Your task to perform on an android device: stop showing notifications on the lock screen Image 0: 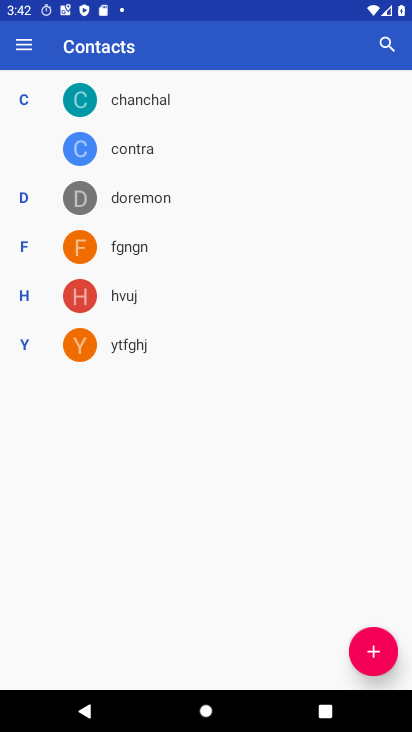
Step 0: press home button
Your task to perform on an android device: stop showing notifications on the lock screen Image 1: 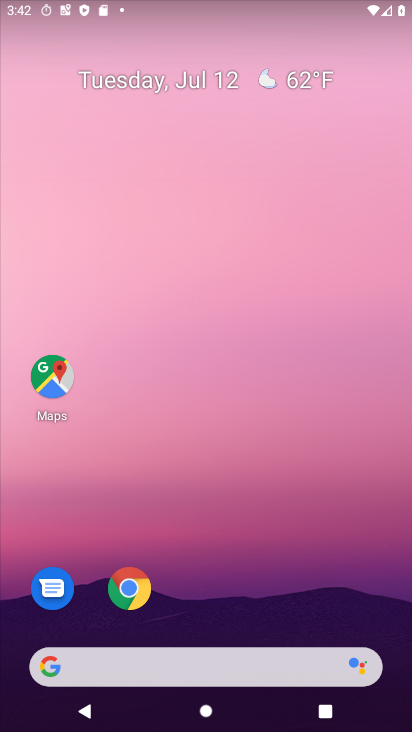
Step 1: drag from (195, 586) to (192, 113)
Your task to perform on an android device: stop showing notifications on the lock screen Image 2: 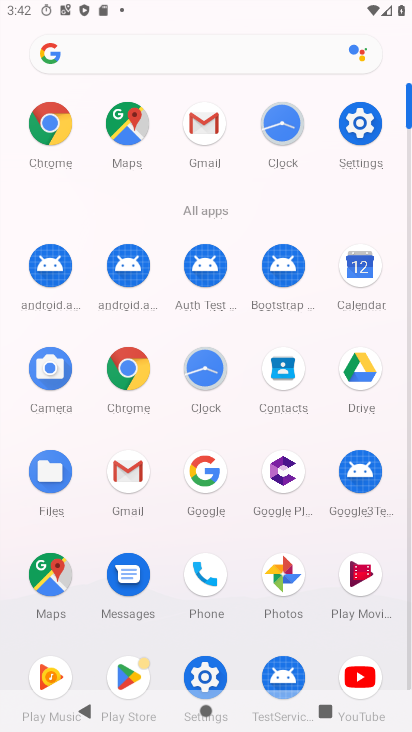
Step 2: click (203, 669)
Your task to perform on an android device: stop showing notifications on the lock screen Image 3: 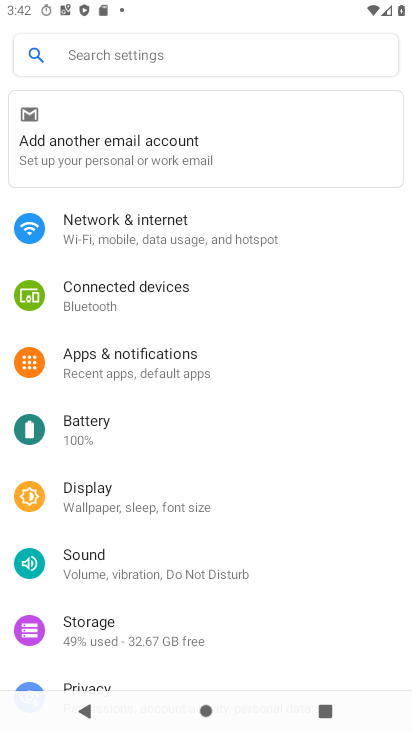
Step 3: click (151, 368)
Your task to perform on an android device: stop showing notifications on the lock screen Image 4: 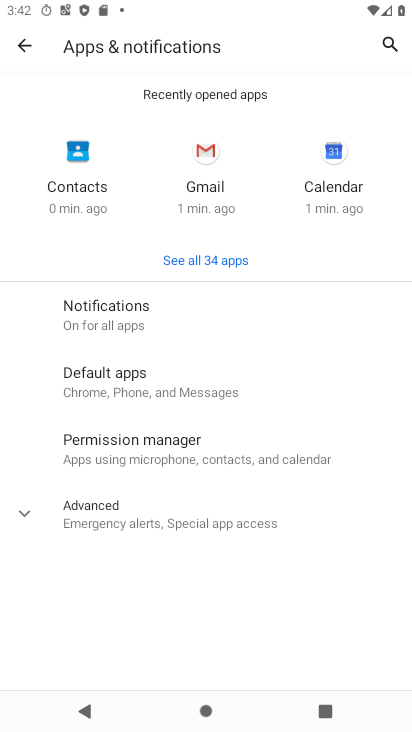
Step 4: click (148, 325)
Your task to perform on an android device: stop showing notifications on the lock screen Image 5: 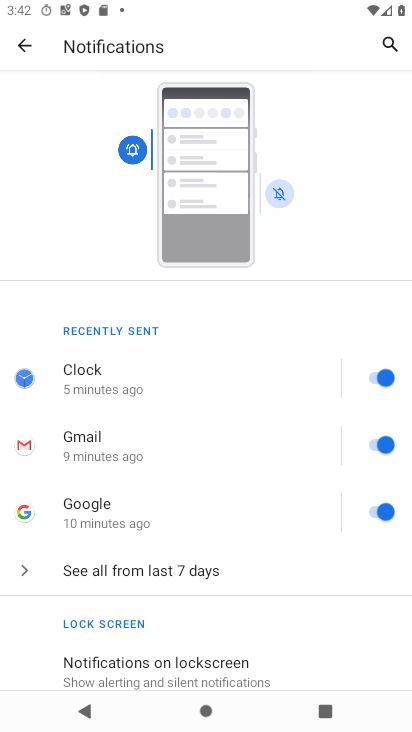
Step 5: drag from (184, 620) to (182, 364)
Your task to perform on an android device: stop showing notifications on the lock screen Image 6: 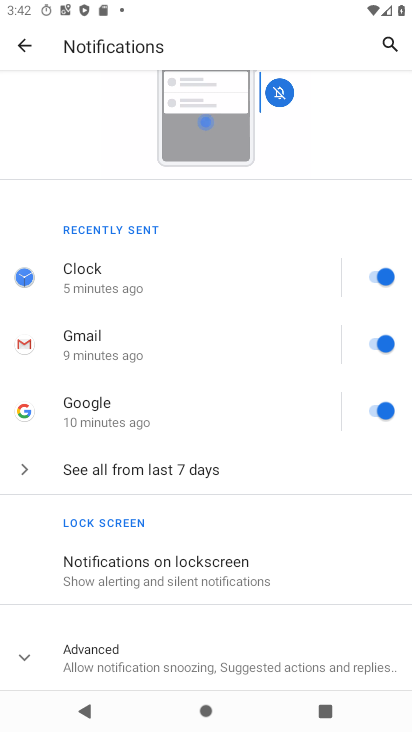
Step 6: click (205, 581)
Your task to perform on an android device: stop showing notifications on the lock screen Image 7: 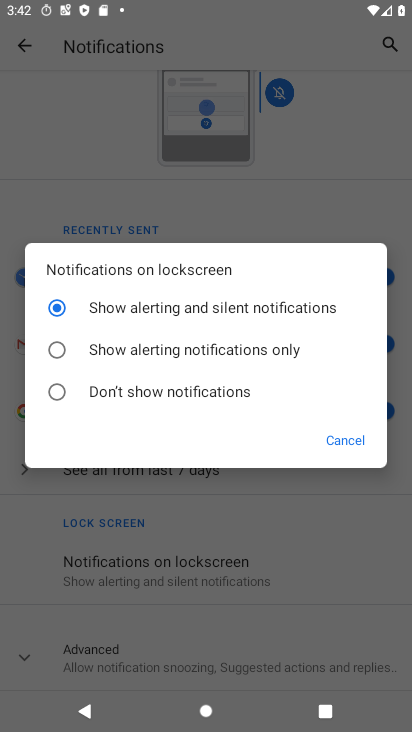
Step 7: click (129, 396)
Your task to perform on an android device: stop showing notifications on the lock screen Image 8: 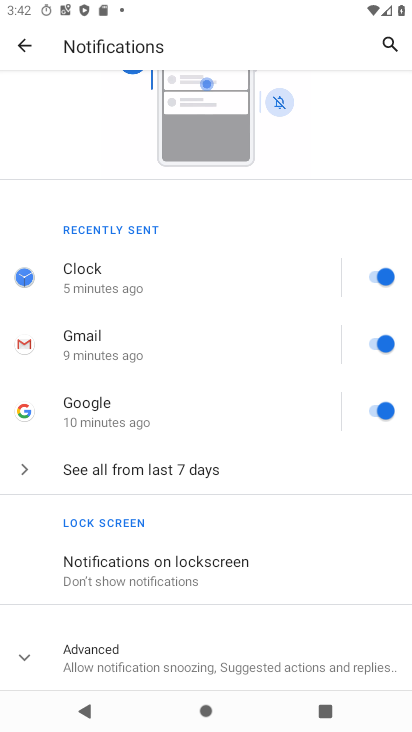
Step 8: task complete